Your task to perform on an android device: Open Google Chrome and open the bookmarks view Image 0: 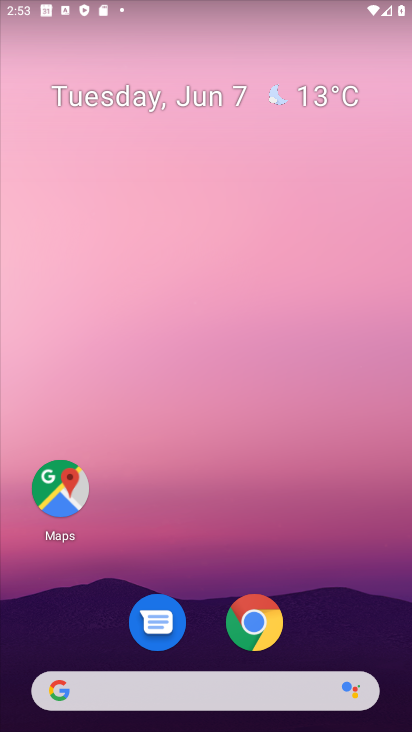
Step 0: click (253, 621)
Your task to perform on an android device: Open Google Chrome and open the bookmarks view Image 1: 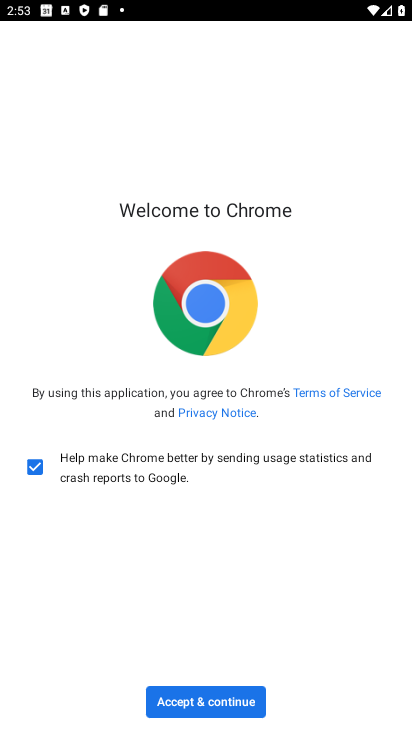
Step 1: click (253, 621)
Your task to perform on an android device: Open Google Chrome and open the bookmarks view Image 2: 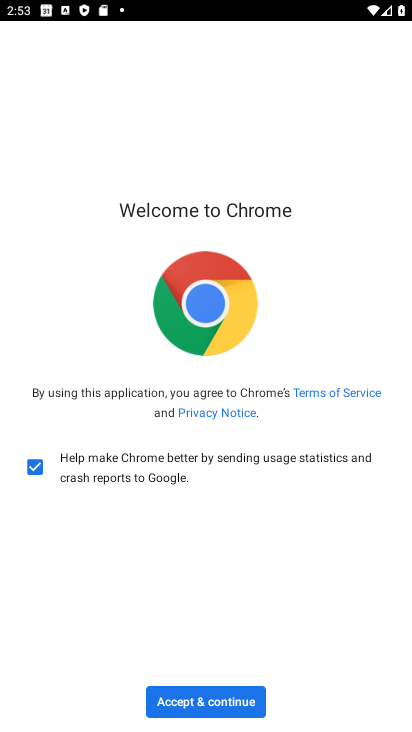
Step 2: click (228, 699)
Your task to perform on an android device: Open Google Chrome and open the bookmarks view Image 3: 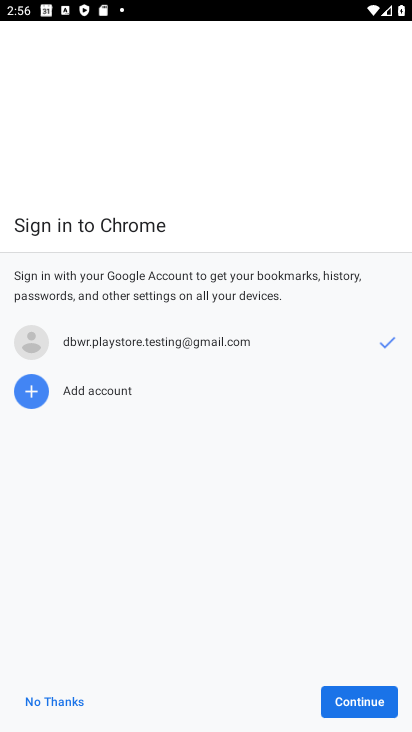
Step 3: press back button
Your task to perform on an android device: Open Google Chrome and open the bookmarks view Image 4: 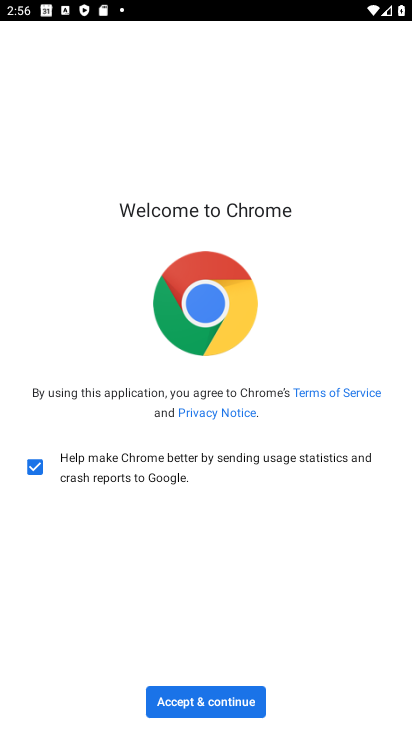
Step 4: click (195, 695)
Your task to perform on an android device: Open Google Chrome and open the bookmarks view Image 5: 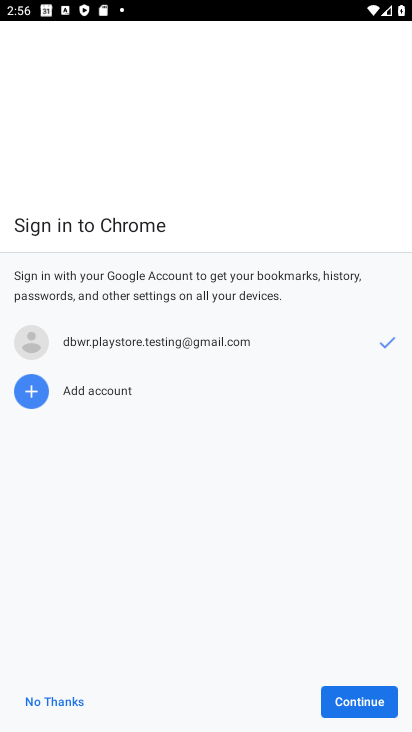
Step 5: click (332, 700)
Your task to perform on an android device: Open Google Chrome and open the bookmarks view Image 6: 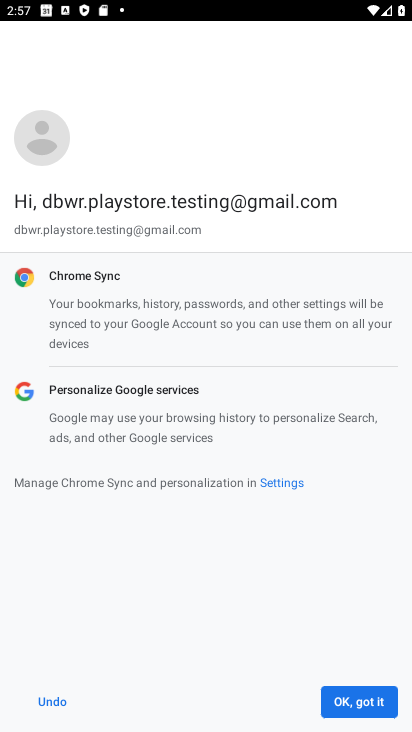
Step 6: click (352, 698)
Your task to perform on an android device: Open Google Chrome and open the bookmarks view Image 7: 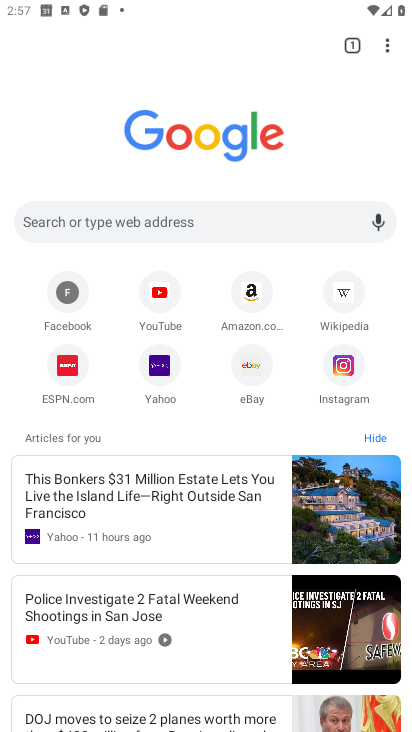
Step 7: click (384, 49)
Your task to perform on an android device: Open Google Chrome and open the bookmarks view Image 8: 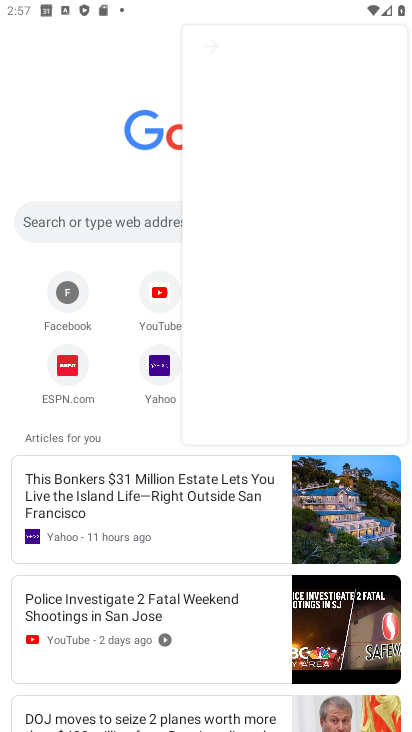
Step 8: click (384, 49)
Your task to perform on an android device: Open Google Chrome and open the bookmarks view Image 9: 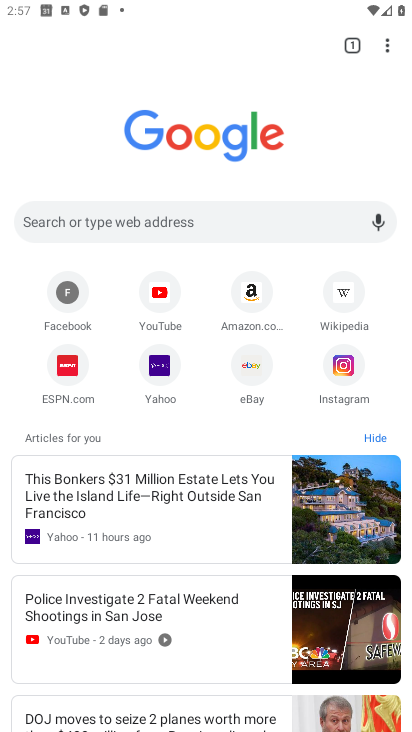
Step 9: click (383, 40)
Your task to perform on an android device: Open Google Chrome and open the bookmarks view Image 10: 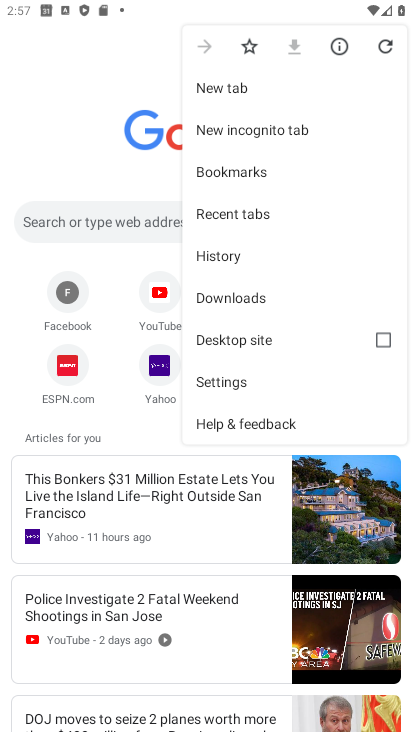
Step 10: click (227, 169)
Your task to perform on an android device: Open Google Chrome and open the bookmarks view Image 11: 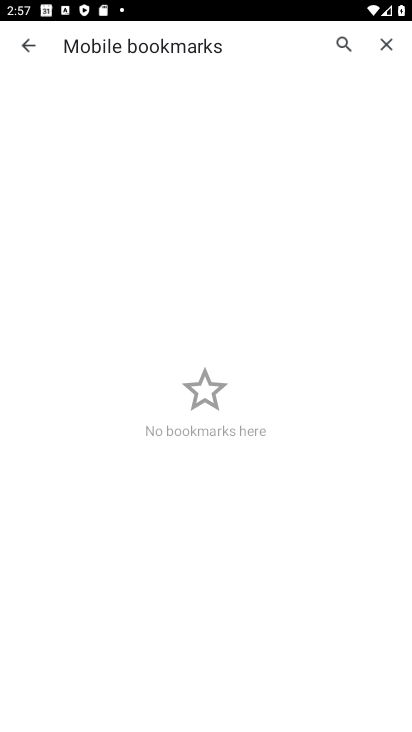
Step 11: task complete